Your task to perform on an android device: Turn on the flashlight Image 0: 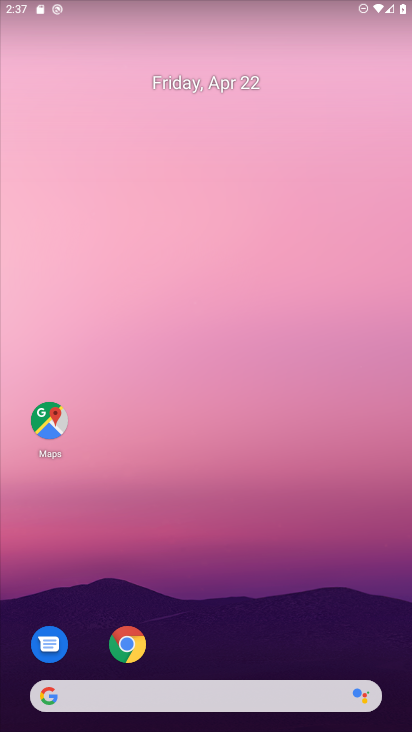
Step 0: drag from (227, 22) to (296, 411)
Your task to perform on an android device: Turn on the flashlight Image 1: 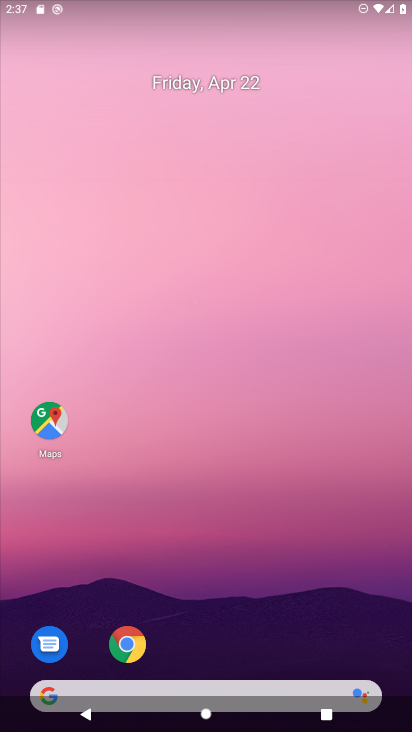
Step 1: task complete